Your task to perform on an android device: Open Chrome and go to settings Image 0: 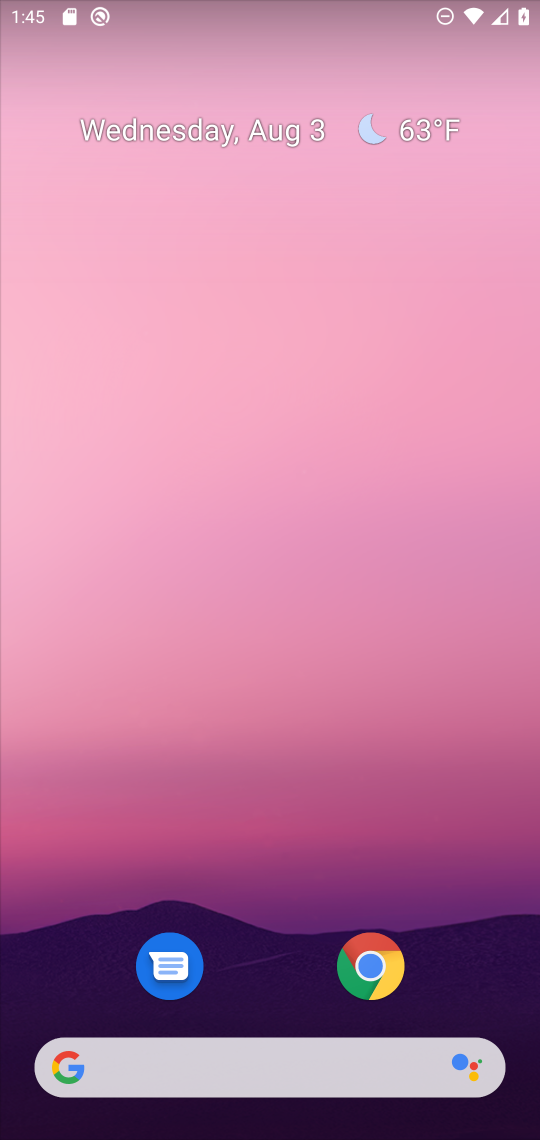
Step 0: click (347, 992)
Your task to perform on an android device: Open Chrome and go to settings Image 1: 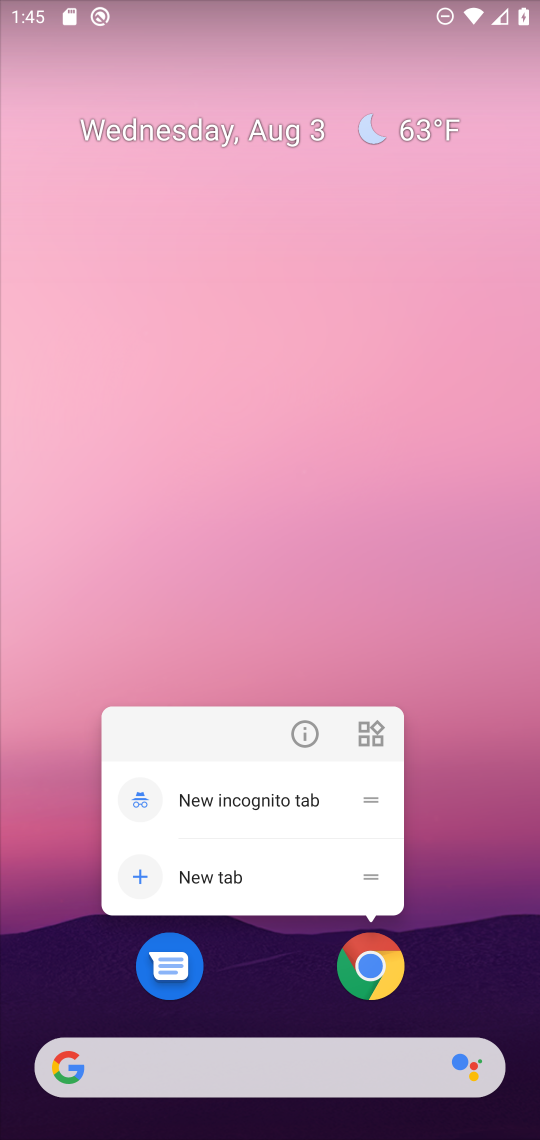
Step 1: click (367, 958)
Your task to perform on an android device: Open Chrome and go to settings Image 2: 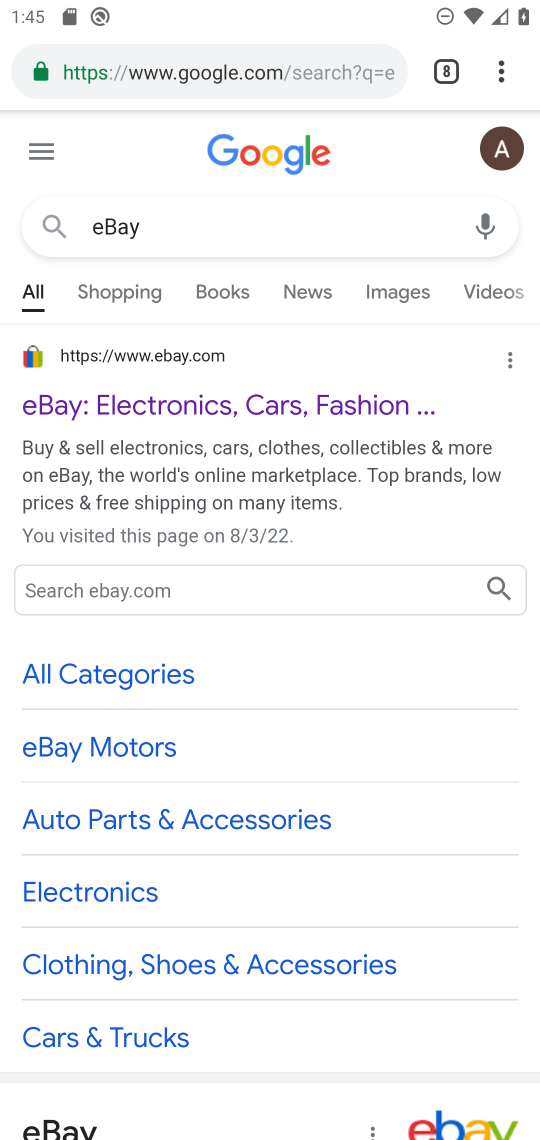
Step 2: click (499, 77)
Your task to perform on an android device: Open Chrome and go to settings Image 3: 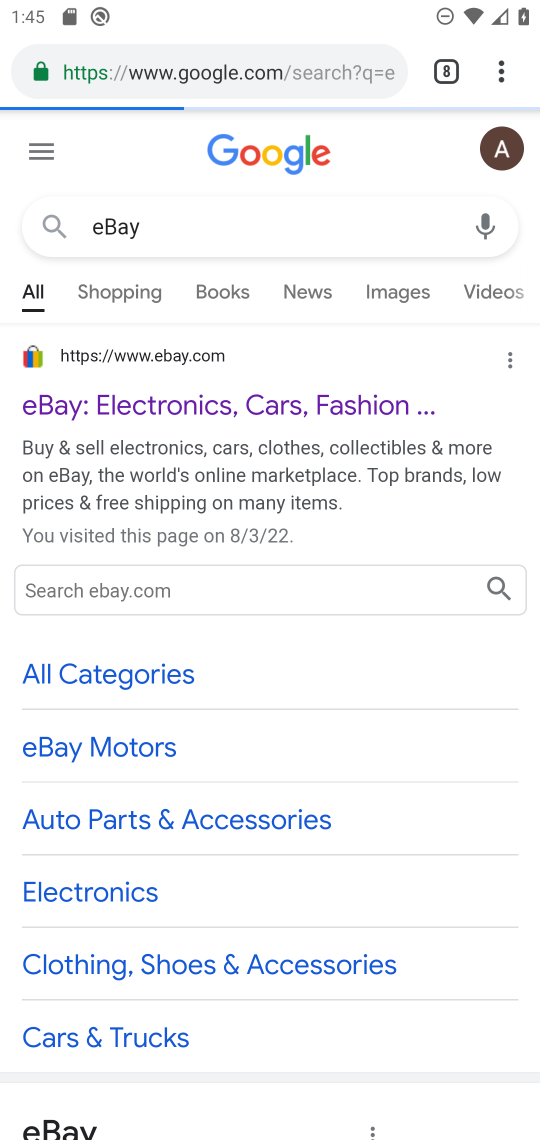
Step 3: click (499, 77)
Your task to perform on an android device: Open Chrome and go to settings Image 4: 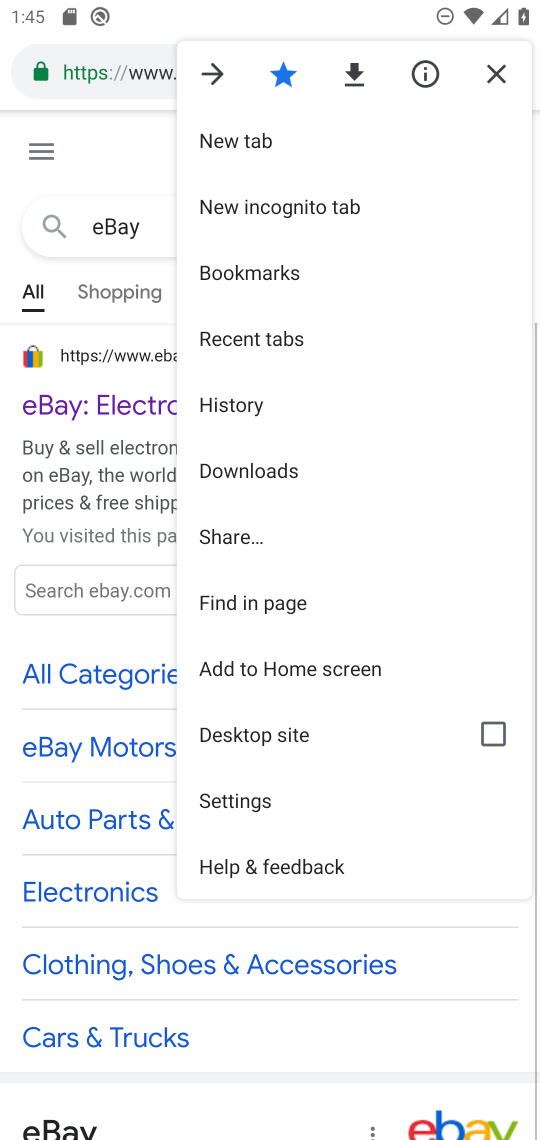
Step 4: click (250, 798)
Your task to perform on an android device: Open Chrome and go to settings Image 5: 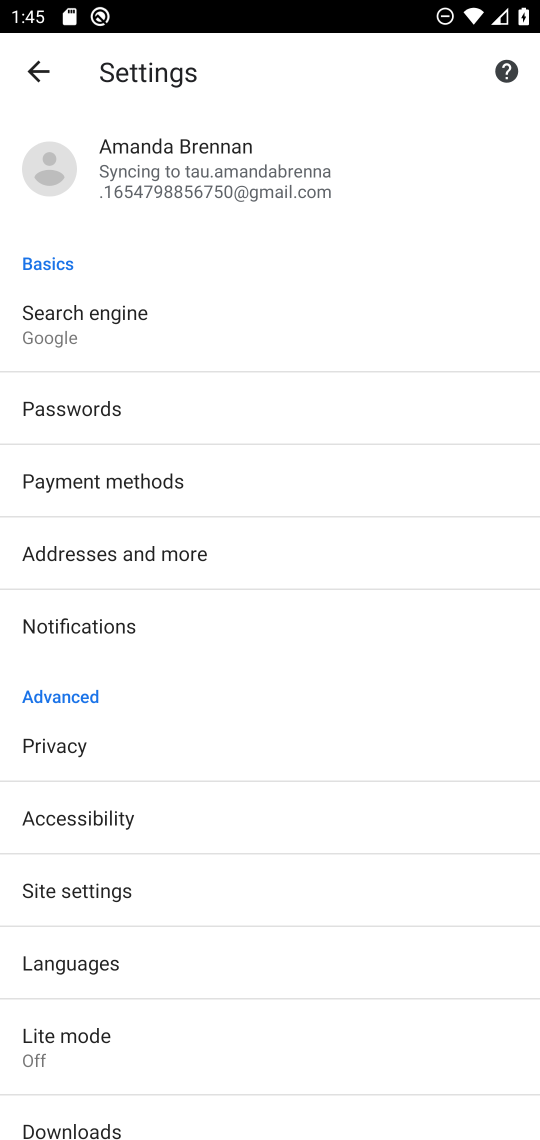
Step 5: task complete